Your task to perform on an android device: refresh tabs in the chrome app Image 0: 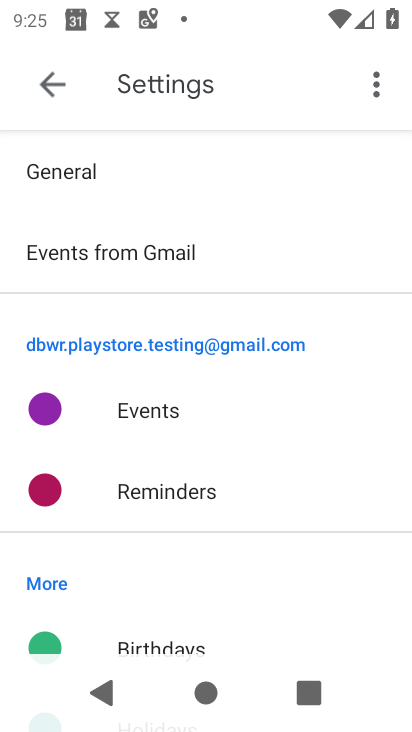
Step 0: press home button
Your task to perform on an android device: refresh tabs in the chrome app Image 1: 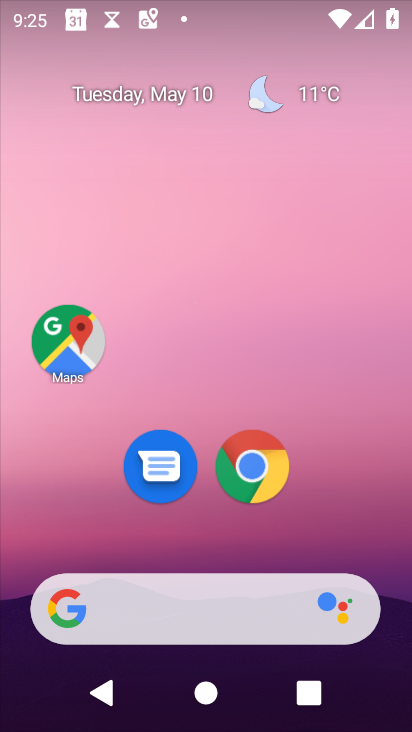
Step 1: click (260, 464)
Your task to perform on an android device: refresh tabs in the chrome app Image 2: 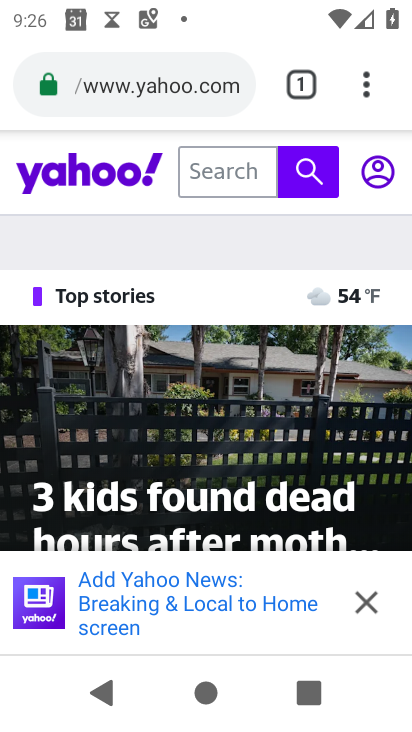
Step 2: click (360, 93)
Your task to perform on an android device: refresh tabs in the chrome app Image 3: 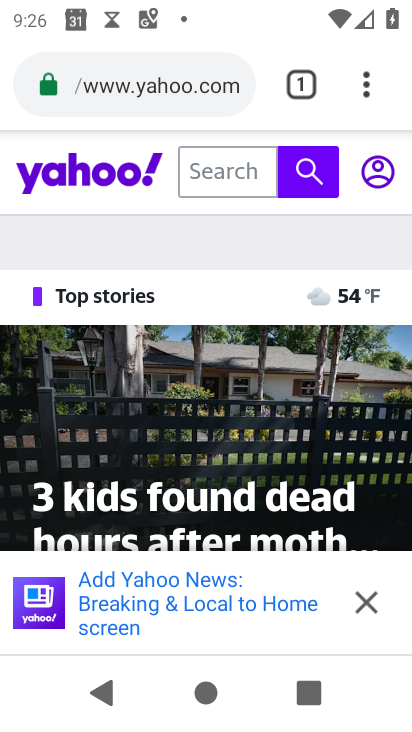
Step 3: click (360, 93)
Your task to perform on an android device: refresh tabs in the chrome app Image 4: 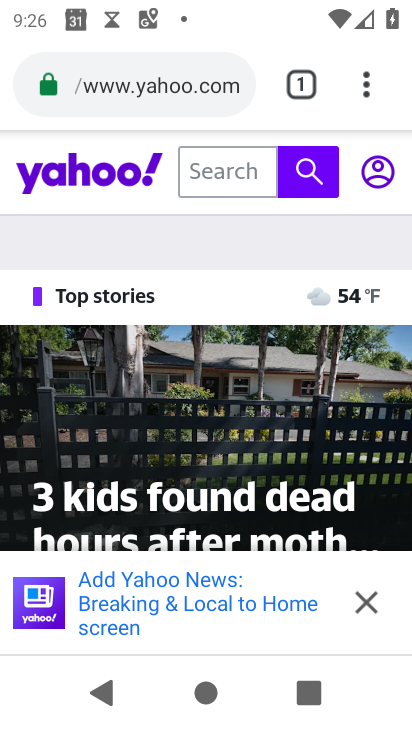
Step 4: click (400, 109)
Your task to perform on an android device: refresh tabs in the chrome app Image 5: 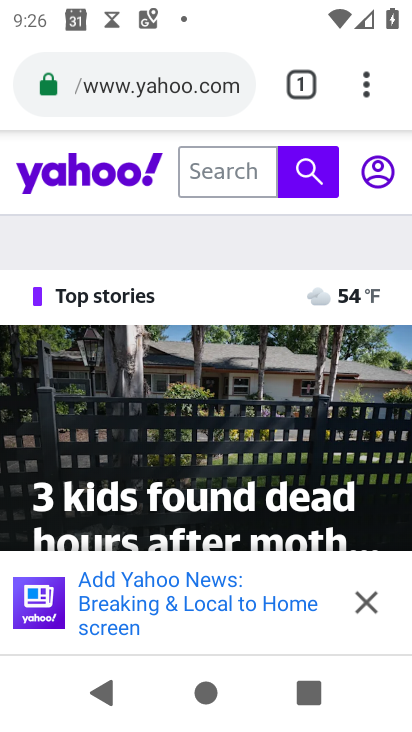
Step 5: click (402, 67)
Your task to perform on an android device: refresh tabs in the chrome app Image 6: 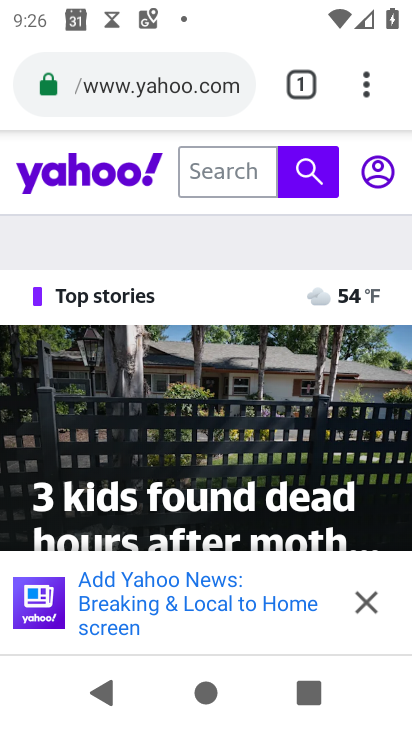
Step 6: click (369, 83)
Your task to perform on an android device: refresh tabs in the chrome app Image 7: 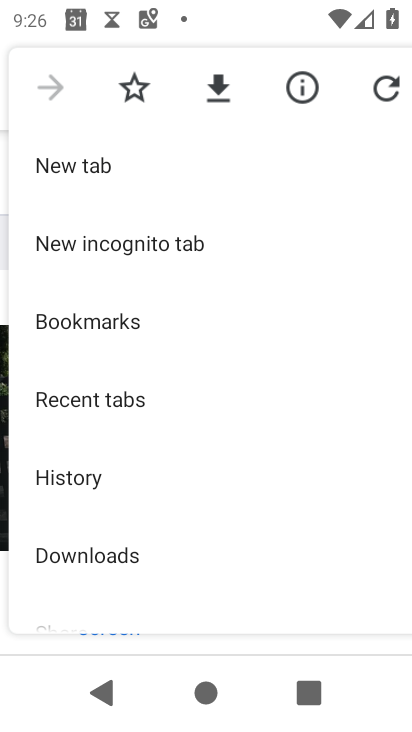
Step 7: click (370, 83)
Your task to perform on an android device: refresh tabs in the chrome app Image 8: 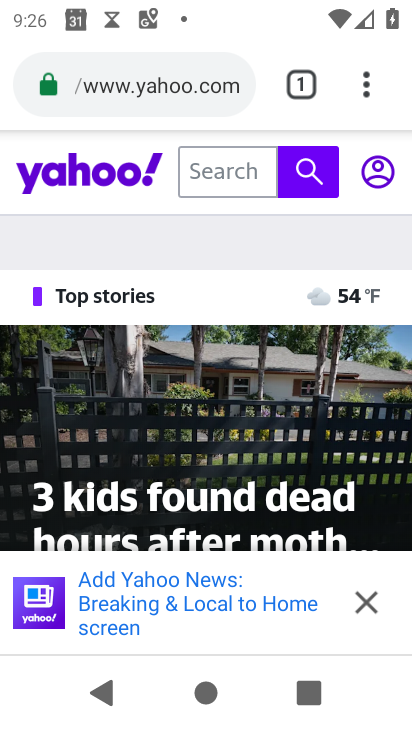
Step 8: task complete